Your task to perform on an android device: open a bookmark in the chrome app Image 0: 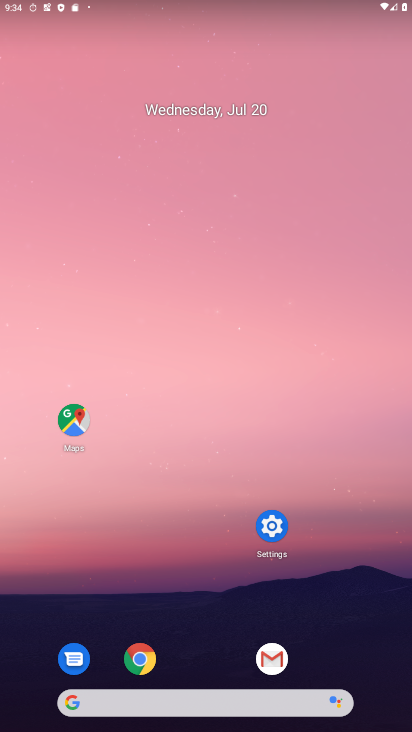
Step 0: click (145, 657)
Your task to perform on an android device: open a bookmark in the chrome app Image 1: 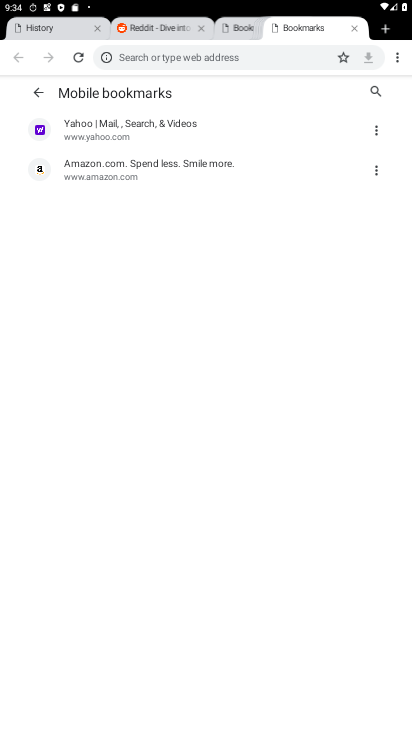
Step 1: click (402, 65)
Your task to perform on an android device: open a bookmark in the chrome app Image 2: 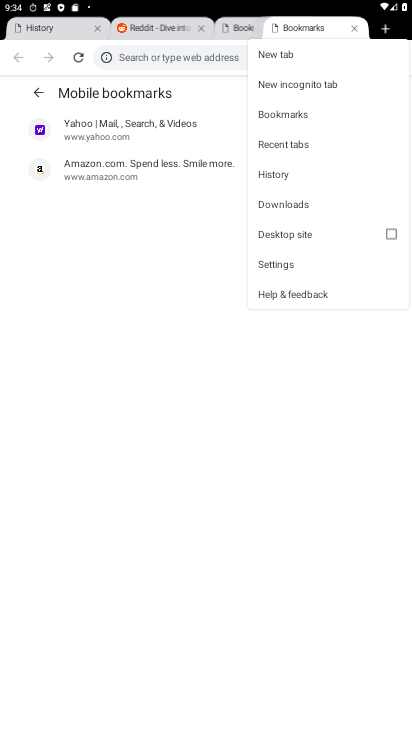
Step 2: click (302, 116)
Your task to perform on an android device: open a bookmark in the chrome app Image 3: 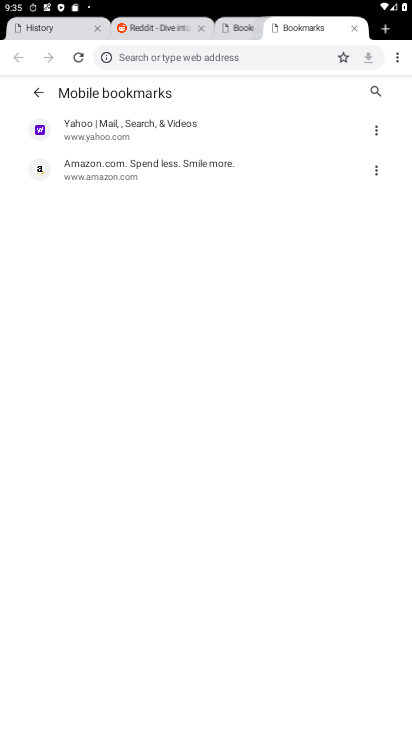
Step 3: task complete